Your task to perform on an android device: Show me popular videos on Youtube Image 0: 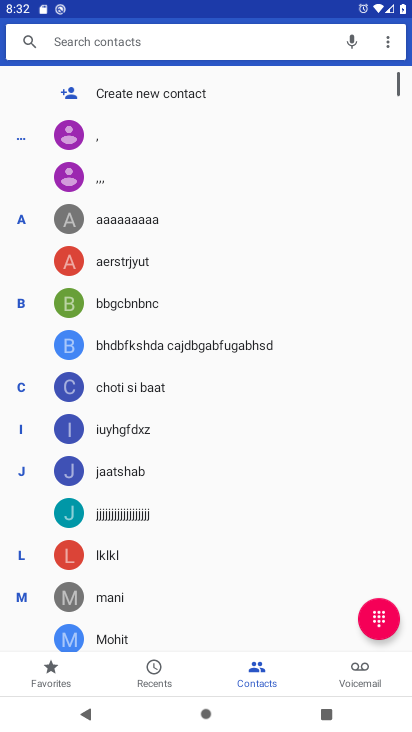
Step 0: press home button
Your task to perform on an android device: Show me popular videos on Youtube Image 1: 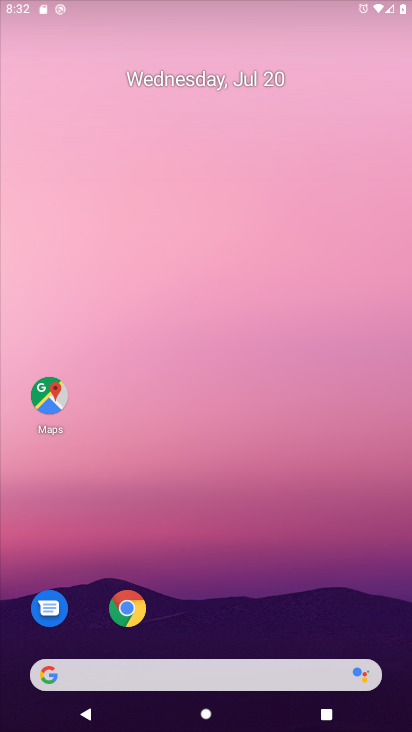
Step 1: drag from (310, 617) to (304, 277)
Your task to perform on an android device: Show me popular videos on Youtube Image 2: 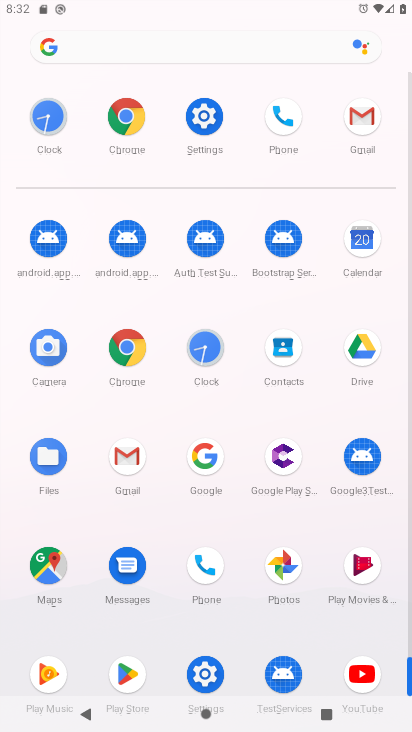
Step 2: click (365, 682)
Your task to perform on an android device: Show me popular videos on Youtube Image 3: 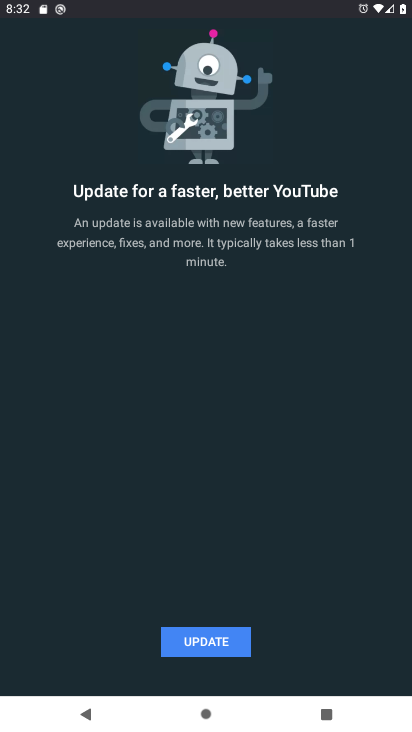
Step 3: task complete